Your task to perform on an android device: Open Google Chrome Image 0: 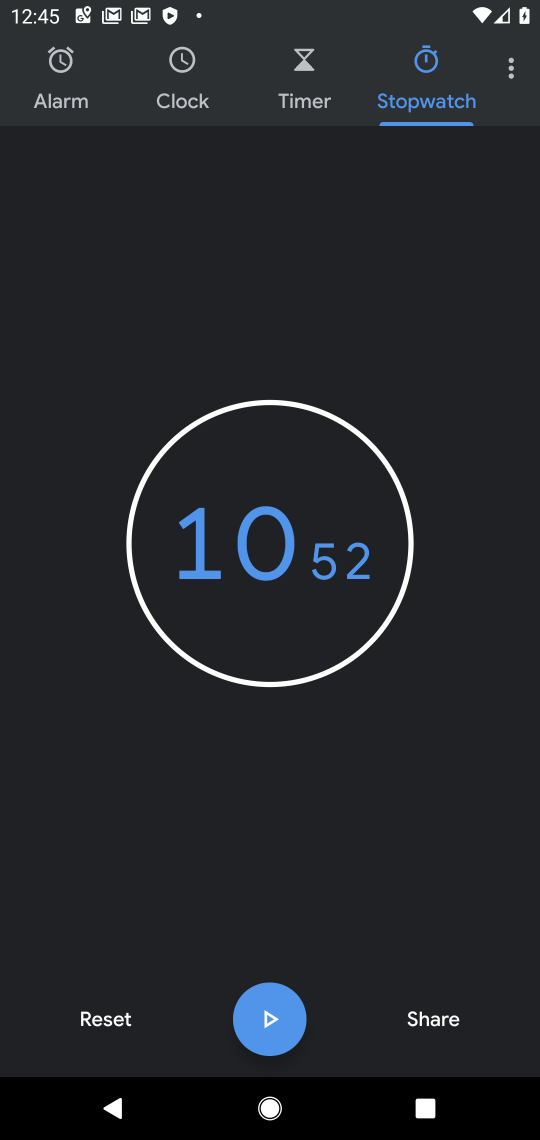
Step 0: press home button
Your task to perform on an android device: Open Google Chrome Image 1: 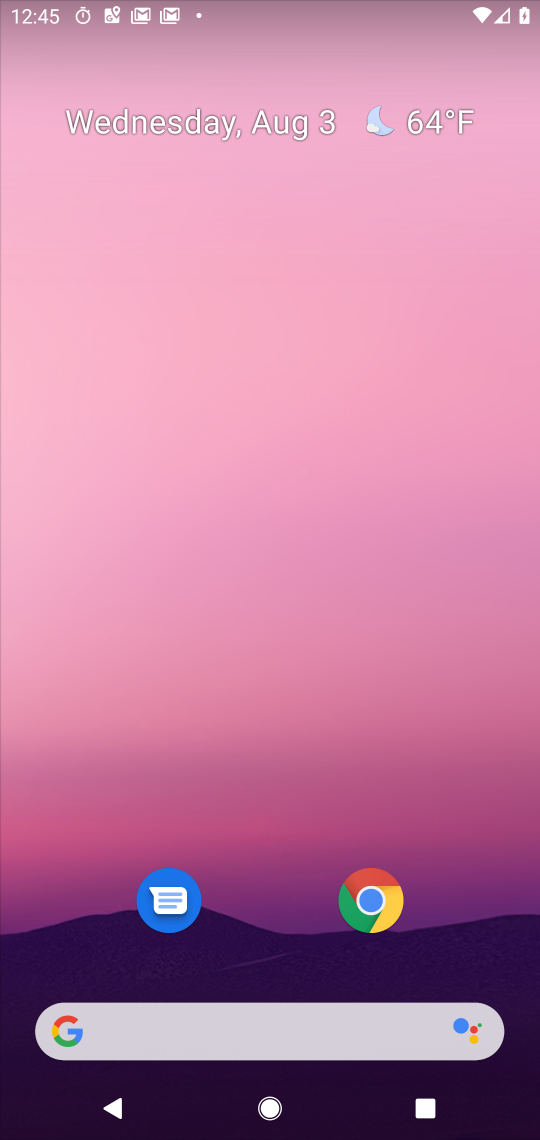
Step 1: drag from (272, 896) to (392, 108)
Your task to perform on an android device: Open Google Chrome Image 2: 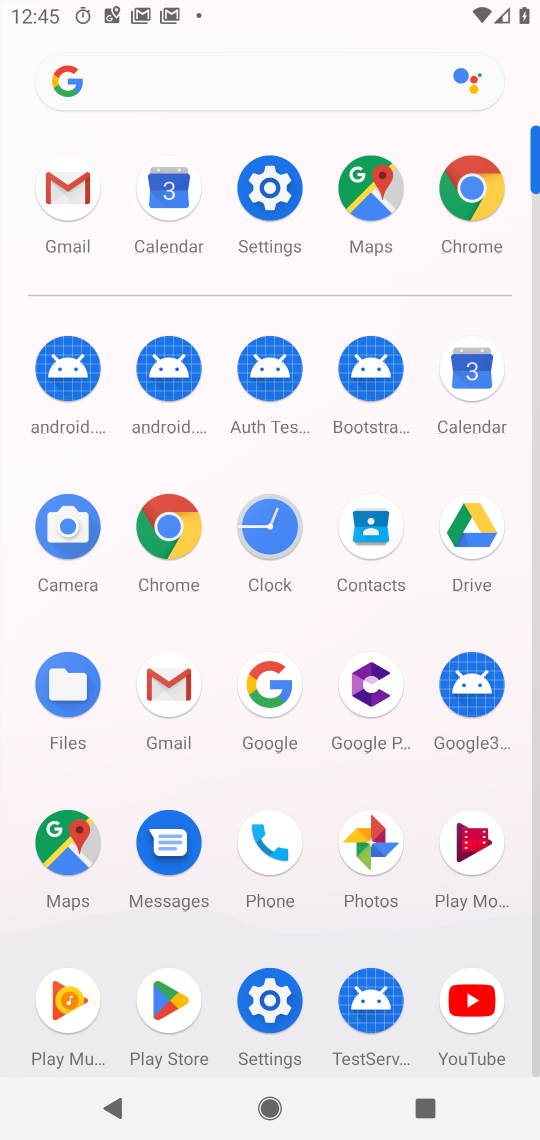
Step 2: click (170, 525)
Your task to perform on an android device: Open Google Chrome Image 3: 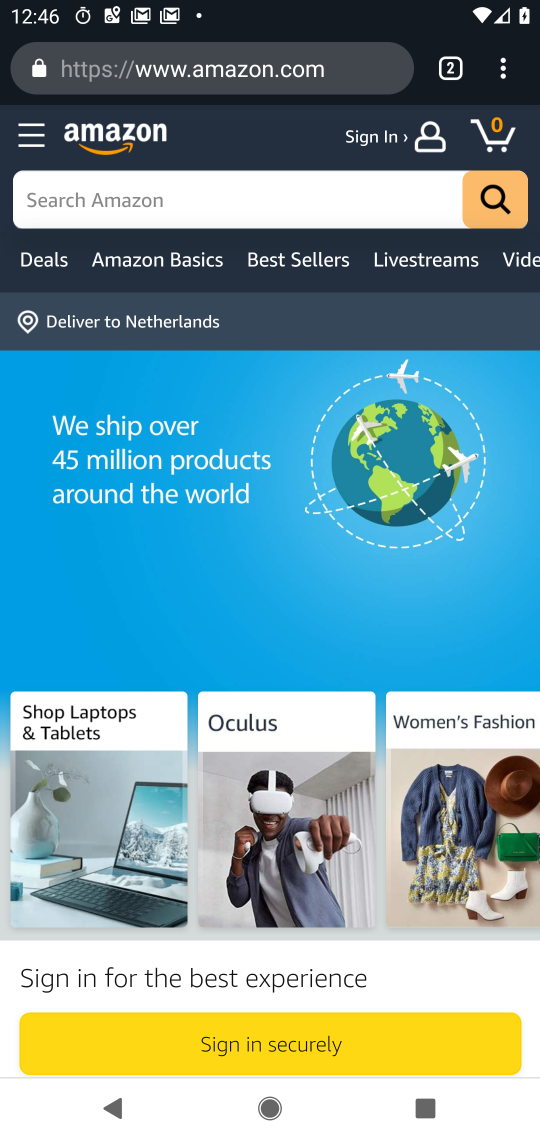
Step 3: task complete